Your task to perform on an android device: Open settings on Google Maps Image 0: 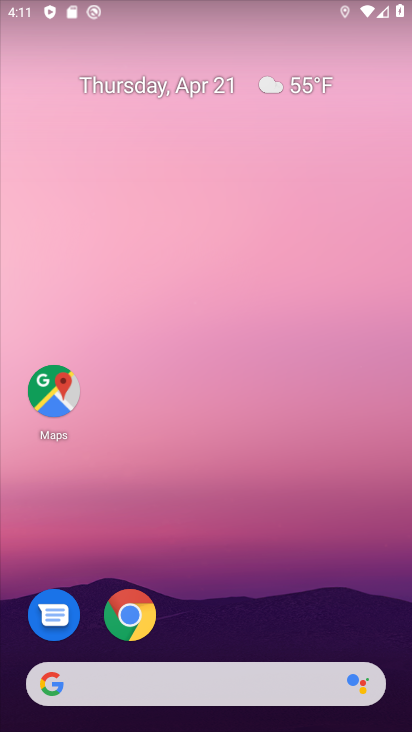
Step 0: click (52, 406)
Your task to perform on an android device: Open settings on Google Maps Image 1: 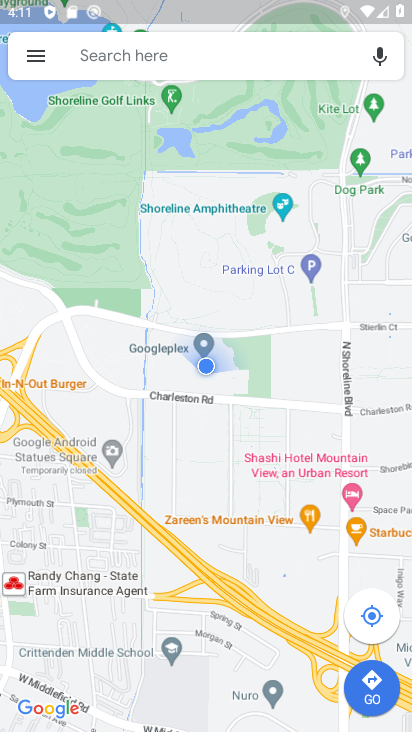
Step 1: click (32, 59)
Your task to perform on an android device: Open settings on Google Maps Image 2: 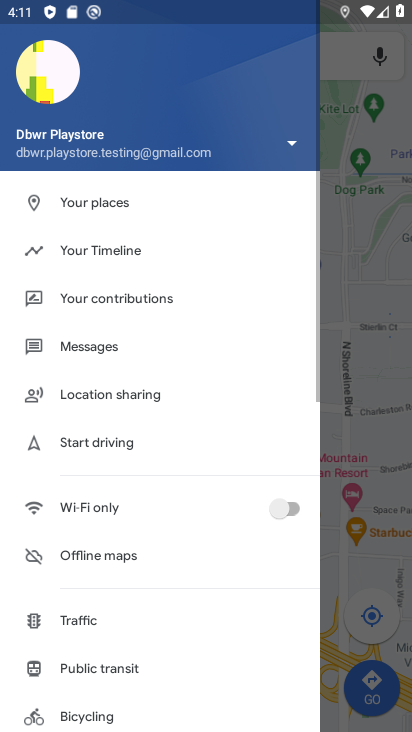
Step 2: drag from (169, 683) to (174, 292)
Your task to perform on an android device: Open settings on Google Maps Image 3: 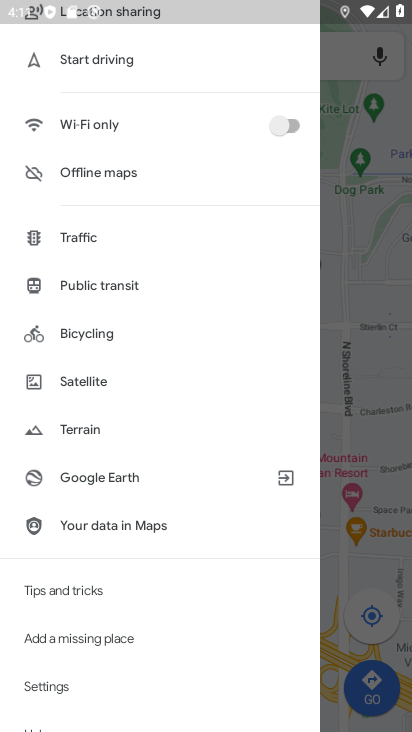
Step 3: click (84, 683)
Your task to perform on an android device: Open settings on Google Maps Image 4: 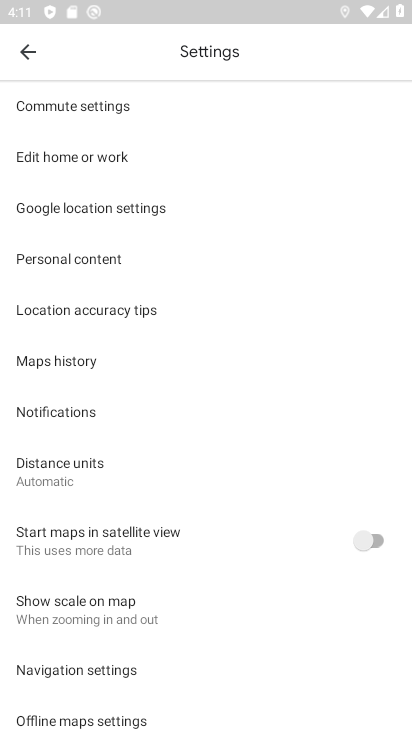
Step 4: task complete